Your task to perform on an android device: toggle improve location accuracy Image 0: 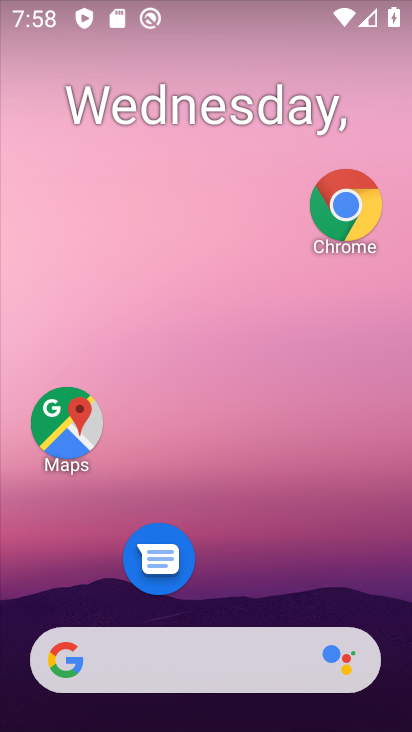
Step 0: drag from (249, 519) to (245, 157)
Your task to perform on an android device: toggle improve location accuracy Image 1: 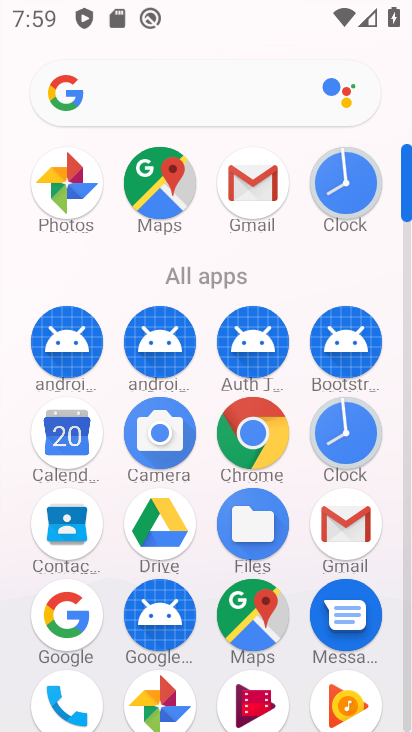
Step 1: drag from (207, 675) to (240, 222)
Your task to perform on an android device: toggle improve location accuracy Image 2: 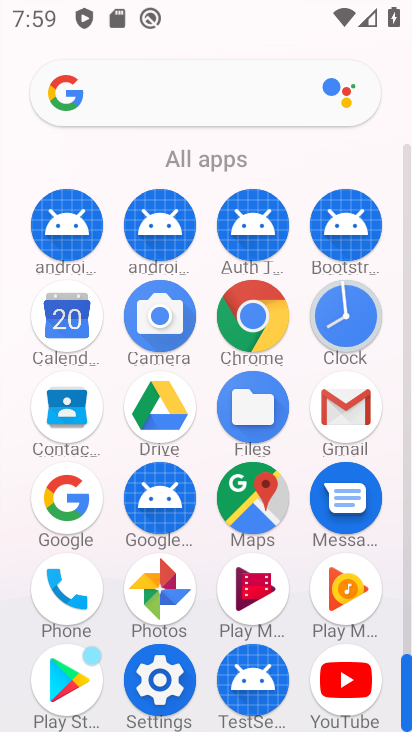
Step 2: click (161, 674)
Your task to perform on an android device: toggle improve location accuracy Image 3: 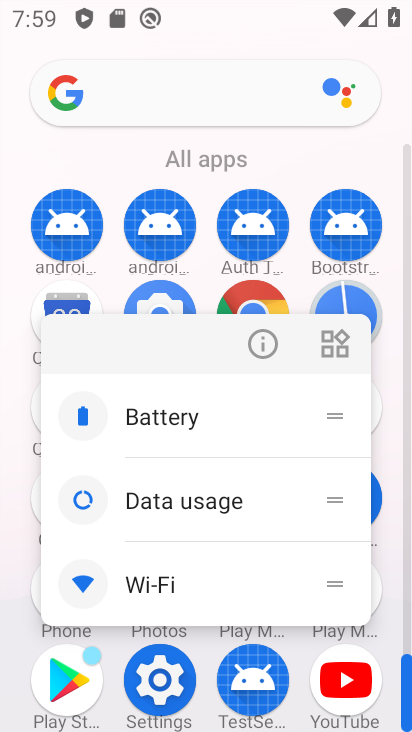
Step 3: click (250, 349)
Your task to perform on an android device: toggle improve location accuracy Image 4: 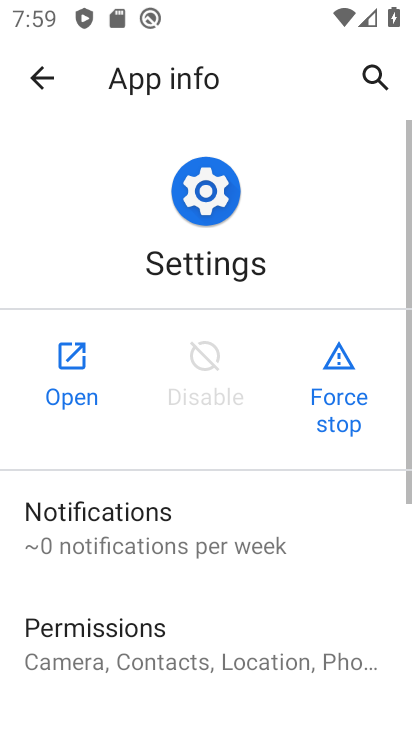
Step 4: click (59, 360)
Your task to perform on an android device: toggle improve location accuracy Image 5: 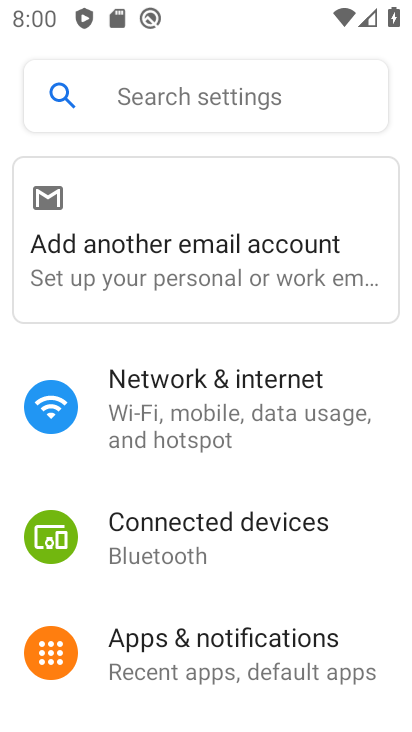
Step 5: drag from (183, 528) to (220, 204)
Your task to perform on an android device: toggle improve location accuracy Image 6: 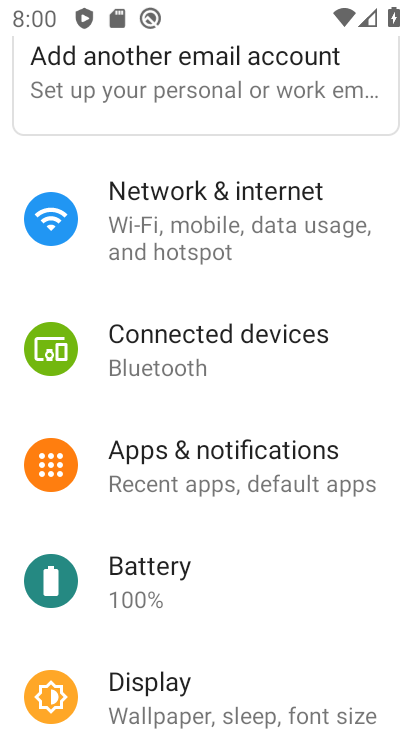
Step 6: drag from (186, 555) to (264, 194)
Your task to perform on an android device: toggle improve location accuracy Image 7: 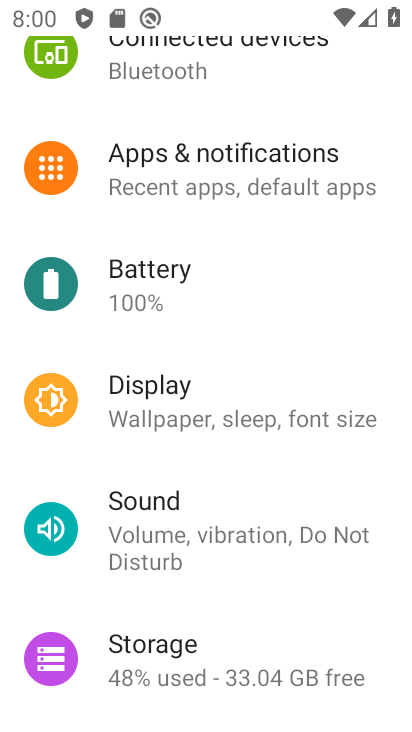
Step 7: drag from (193, 506) to (251, 50)
Your task to perform on an android device: toggle improve location accuracy Image 8: 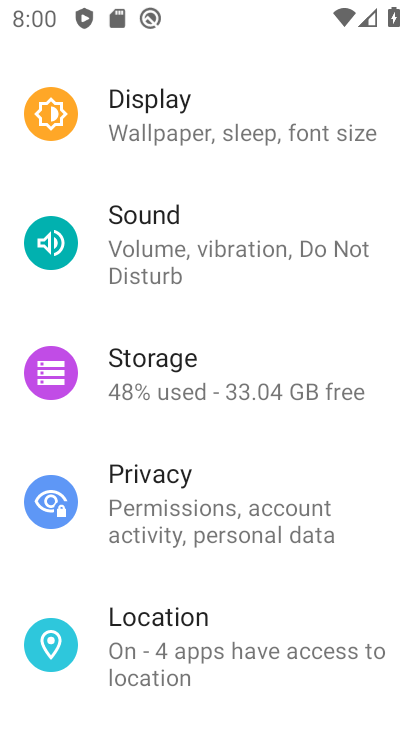
Step 8: click (177, 629)
Your task to perform on an android device: toggle improve location accuracy Image 9: 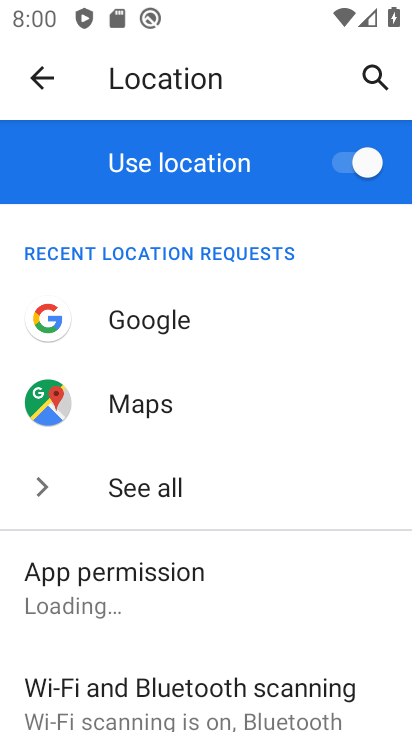
Step 9: drag from (191, 561) to (224, 224)
Your task to perform on an android device: toggle improve location accuracy Image 10: 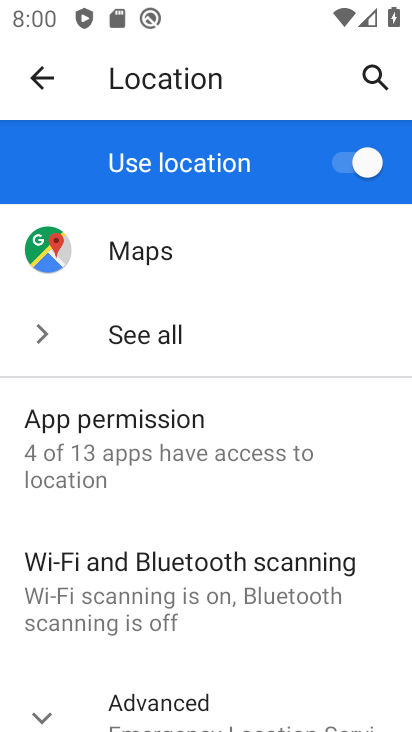
Step 10: drag from (203, 626) to (215, 255)
Your task to perform on an android device: toggle improve location accuracy Image 11: 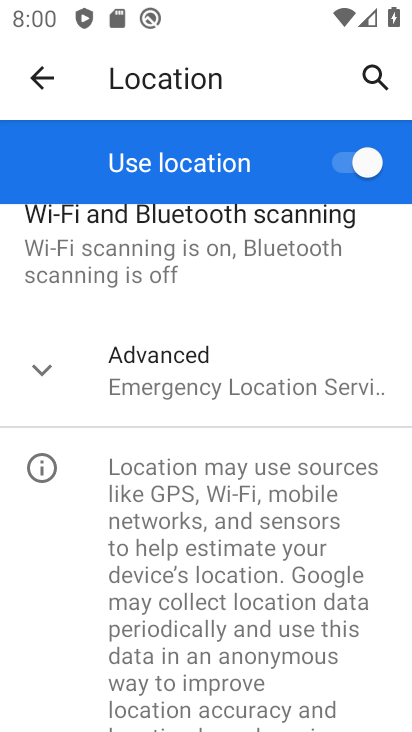
Step 11: click (169, 368)
Your task to perform on an android device: toggle improve location accuracy Image 12: 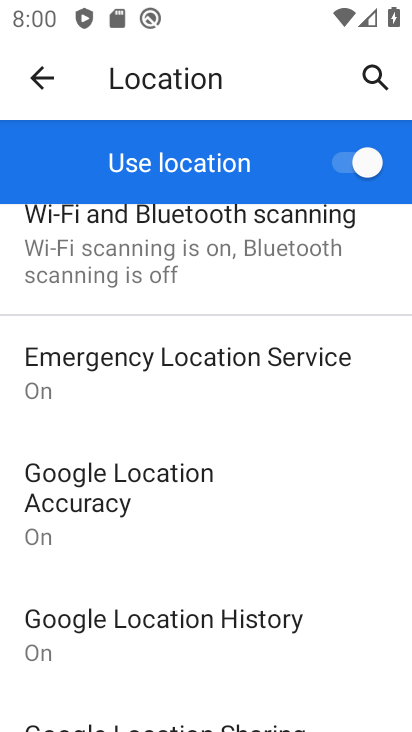
Step 12: click (167, 505)
Your task to perform on an android device: toggle improve location accuracy Image 13: 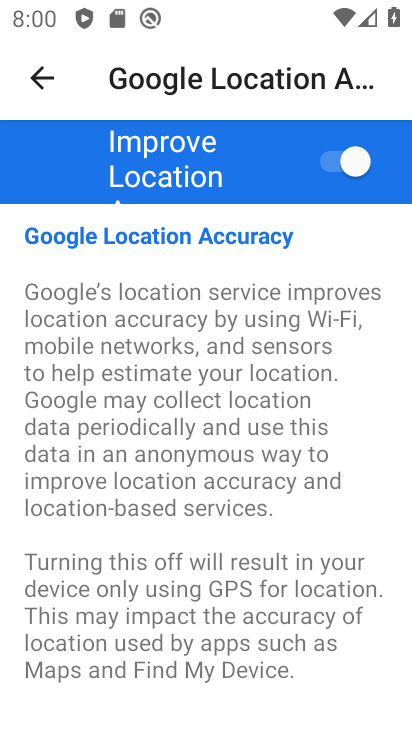
Step 13: click (353, 141)
Your task to perform on an android device: toggle improve location accuracy Image 14: 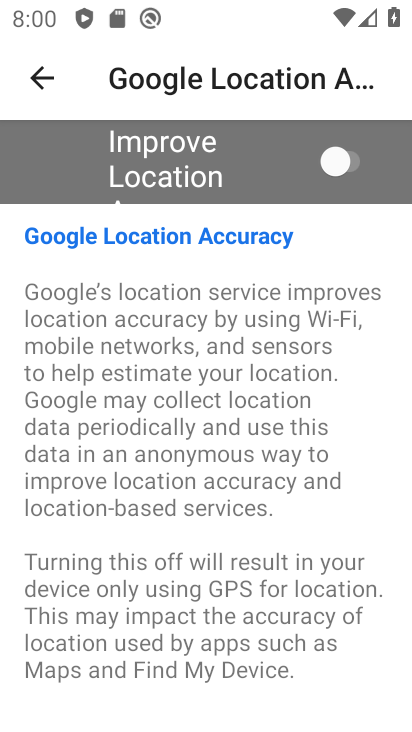
Step 14: task complete